Your task to perform on an android device: Open accessibility settings Image 0: 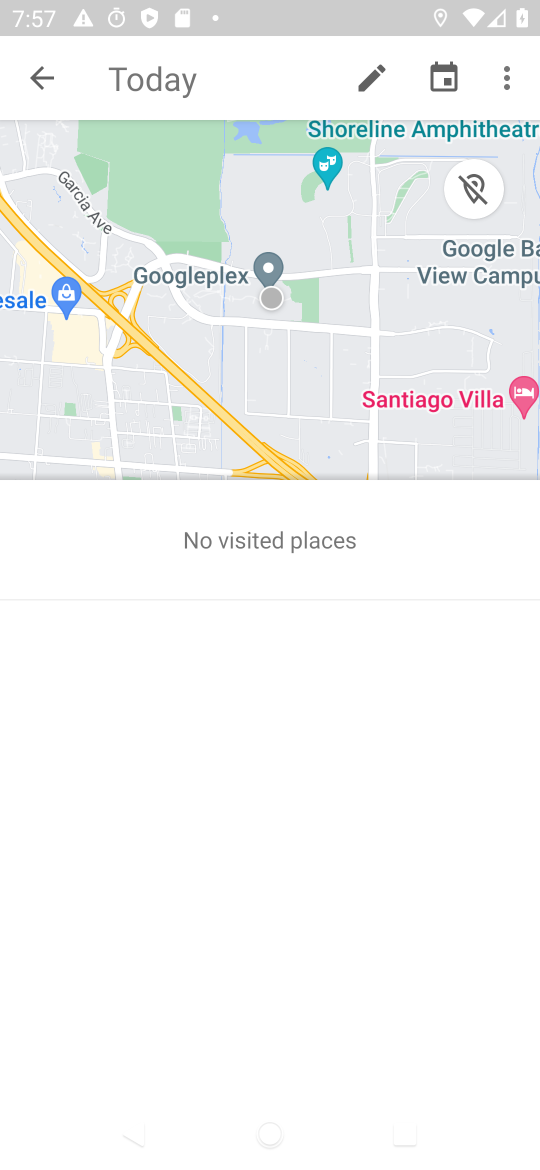
Step 0: press home button
Your task to perform on an android device: Open accessibility settings Image 1: 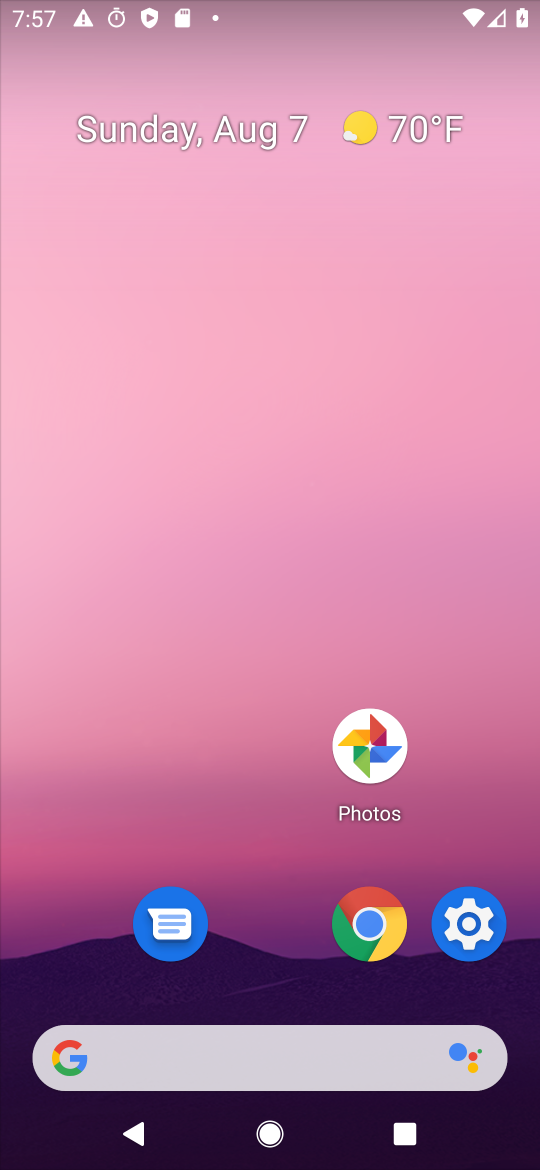
Step 1: drag from (385, 865) to (467, 136)
Your task to perform on an android device: Open accessibility settings Image 2: 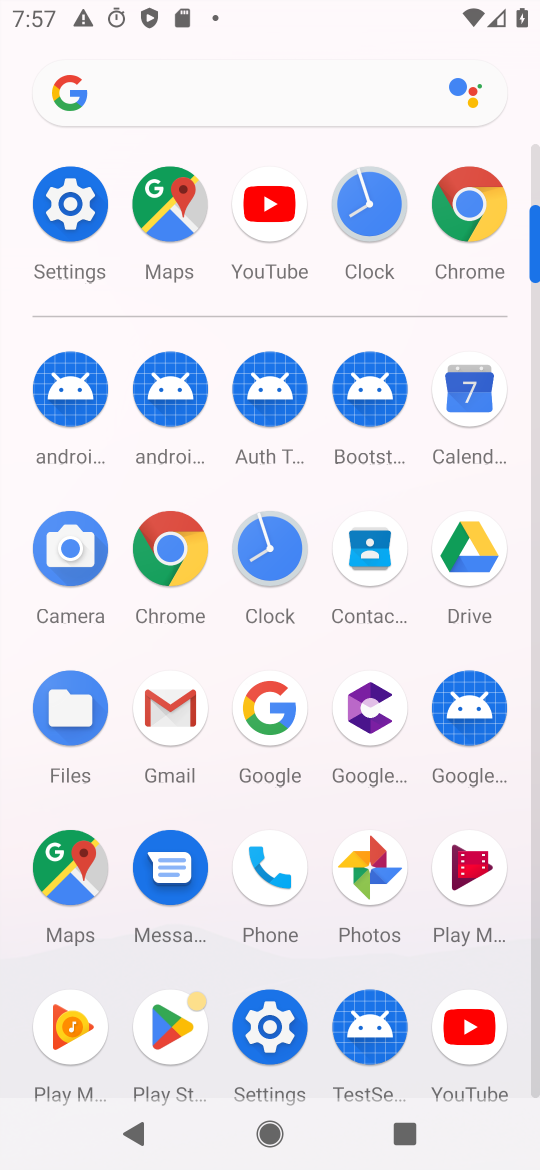
Step 2: click (35, 186)
Your task to perform on an android device: Open accessibility settings Image 3: 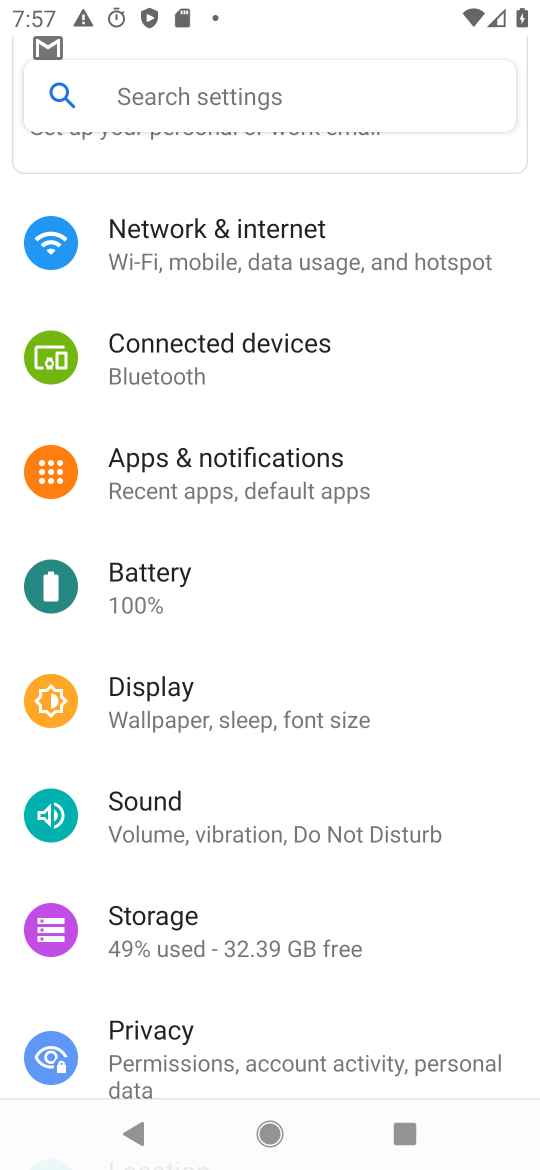
Step 3: click (151, 86)
Your task to perform on an android device: Open accessibility settings Image 4: 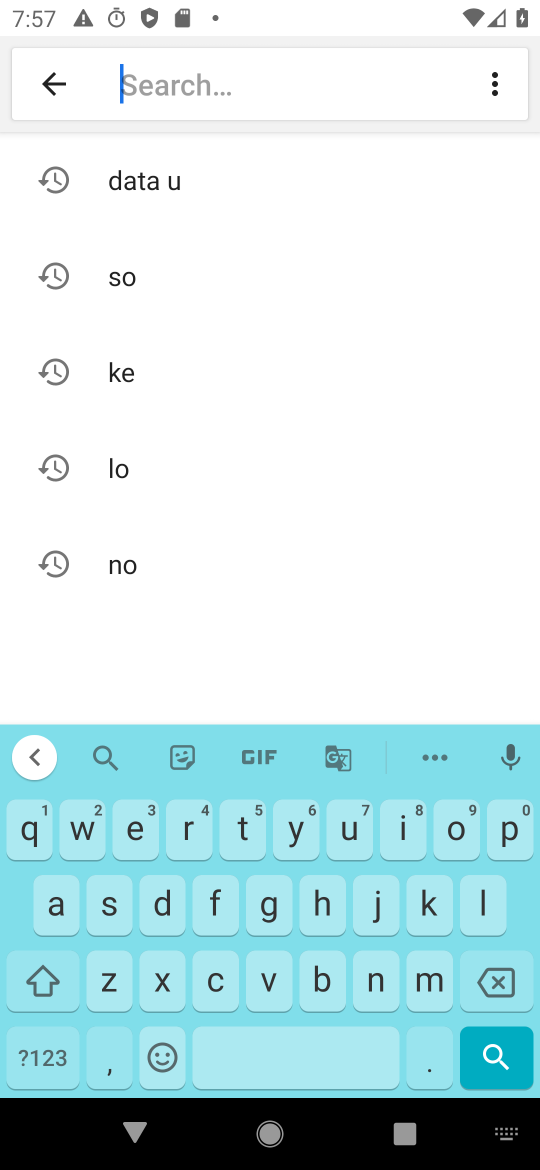
Step 4: click (39, 903)
Your task to perform on an android device: Open accessibility settings Image 5: 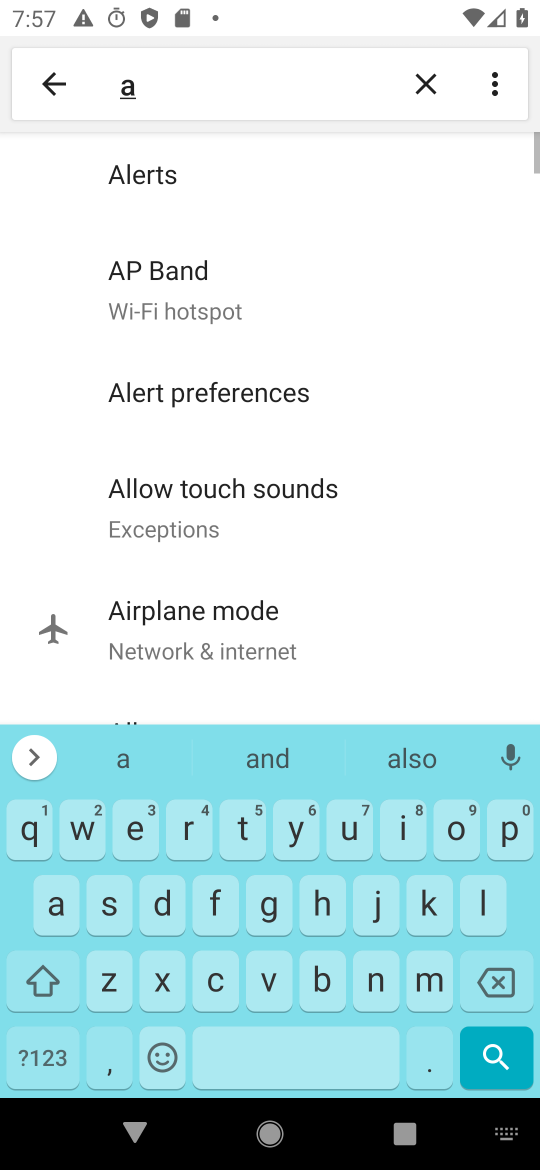
Step 5: click (213, 974)
Your task to perform on an android device: Open accessibility settings Image 6: 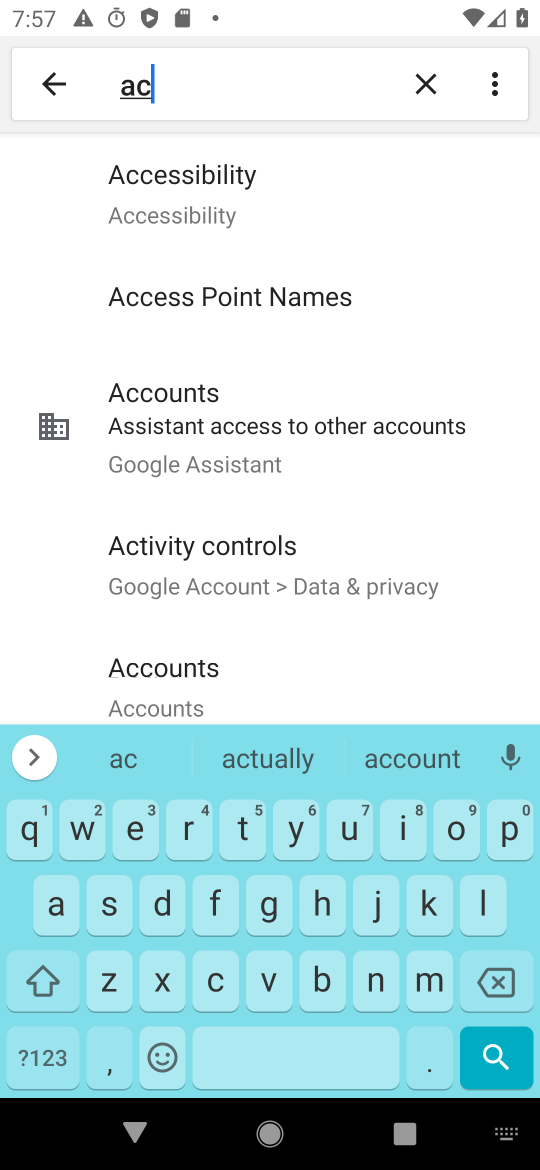
Step 6: click (206, 178)
Your task to perform on an android device: Open accessibility settings Image 7: 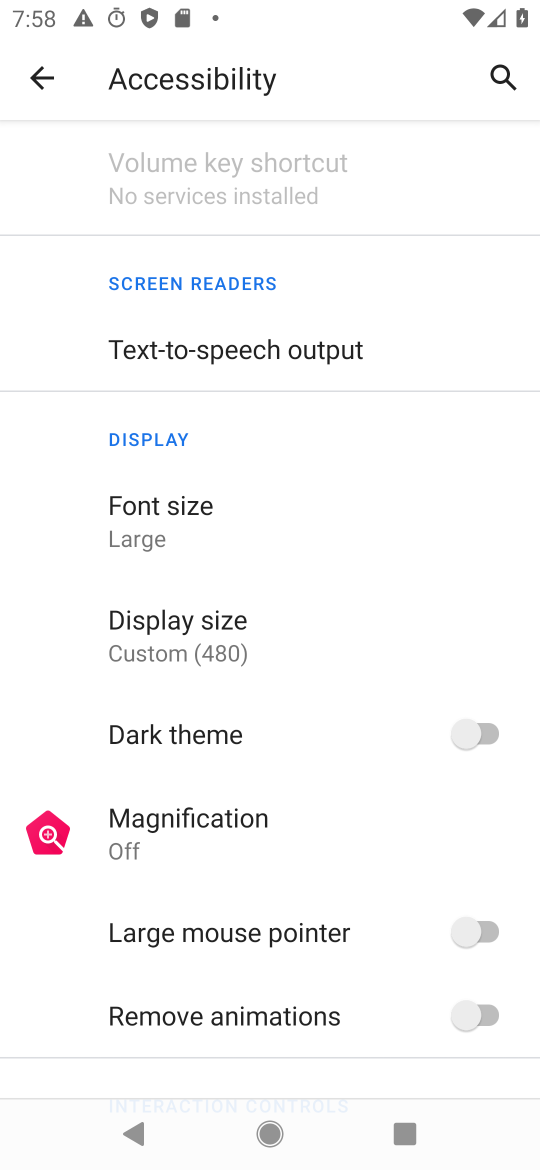
Step 7: task complete